Your task to perform on an android device: Open Yahoo.com Image 0: 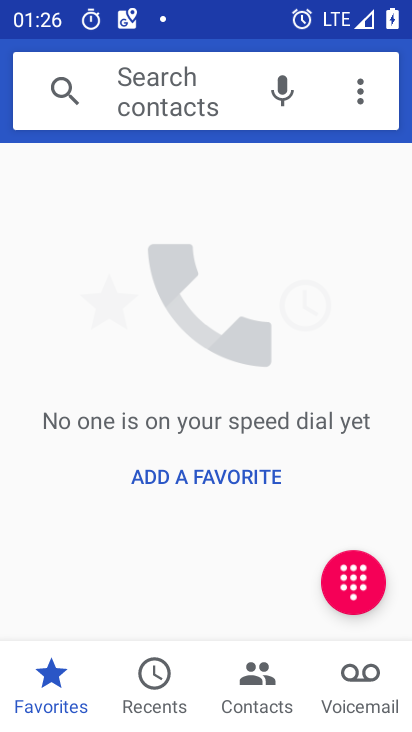
Step 0: press home button
Your task to perform on an android device: Open Yahoo.com Image 1: 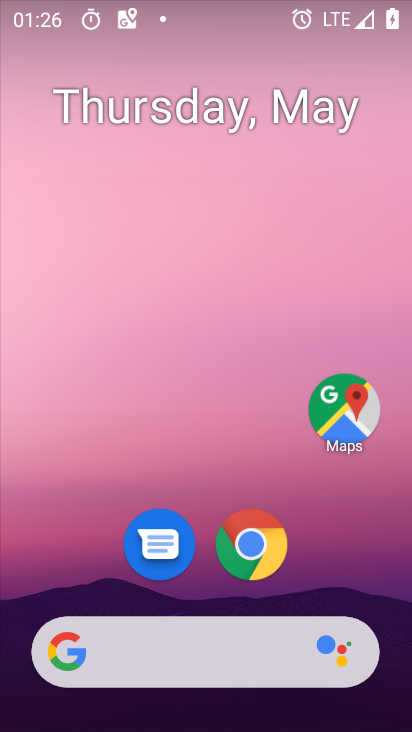
Step 1: drag from (381, 558) to (365, 160)
Your task to perform on an android device: Open Yahoo.com Image 2: 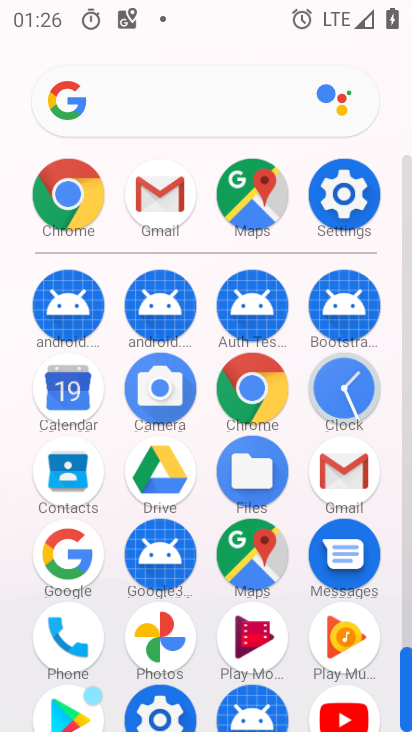
Step 2: click (263, 417)
Your task to perform on an android device: Open Yahoo.com Image 3: 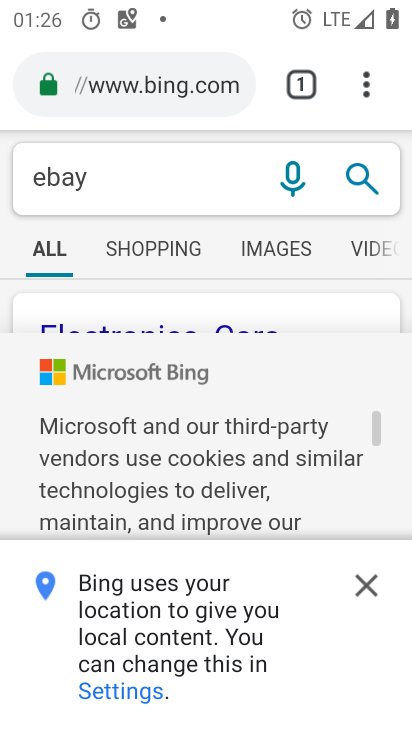
Step 3: task complete